Your task to perform on an android device: toggle airplane mode Image 0: 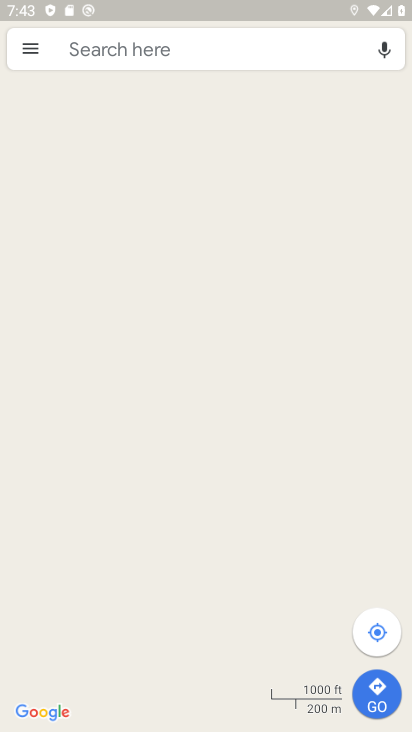
Step 0: press home button
Your task to perform on an android device: toggle airplane mode Image 1: 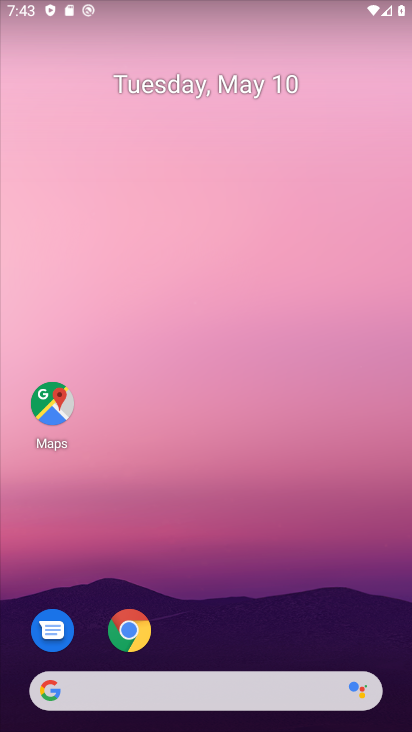
Step 1: drag from (248, 654) to (298, 21)
Your task to perform on an android device: toggle airplane mode Image 2: 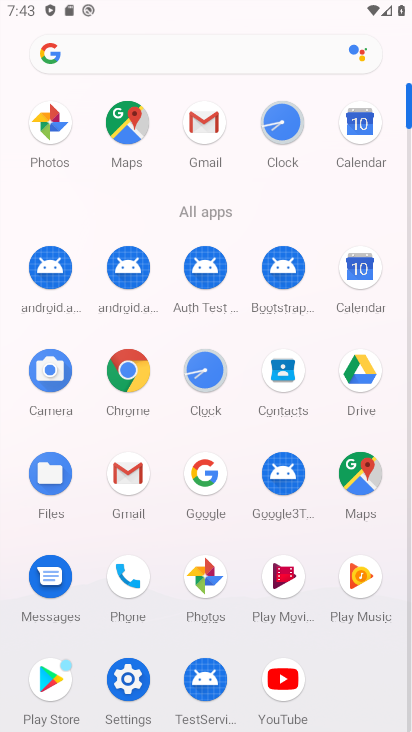
Step 2: click (120, 661)
Your task to perform on an android device: toggle airplane mode Image 3: 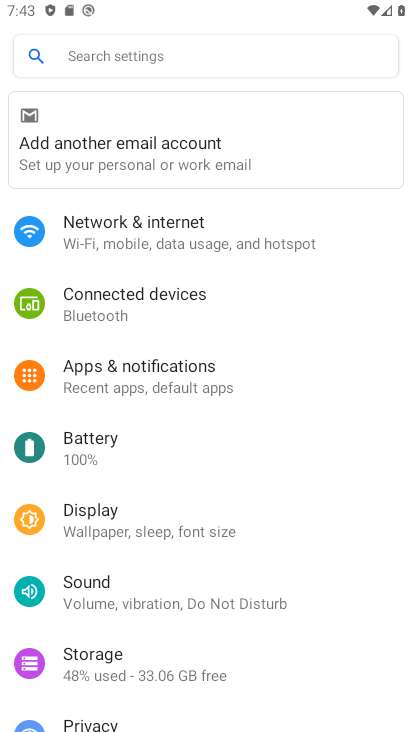
Step 3: click (145, 241)
Your task to perform on an android device: toggle airplane mode Image 4: 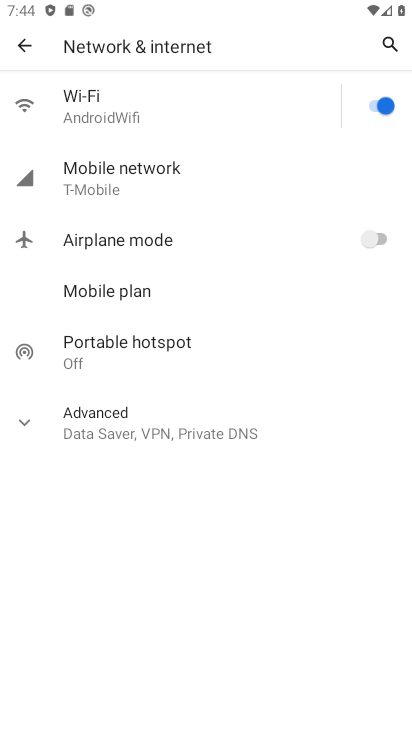
Step 4: click (367, 234)
Your task to perform on an android device: toggle airplane mode Image 5: 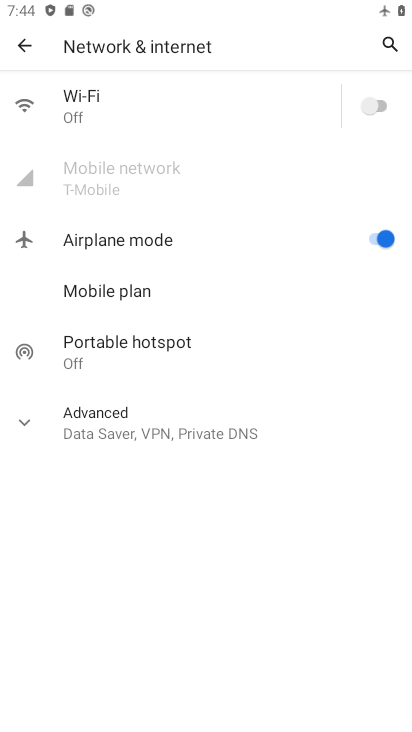
Step 5: task complete